Your task to perform on an android device: turn on the 24-hour format for clock Image 0: 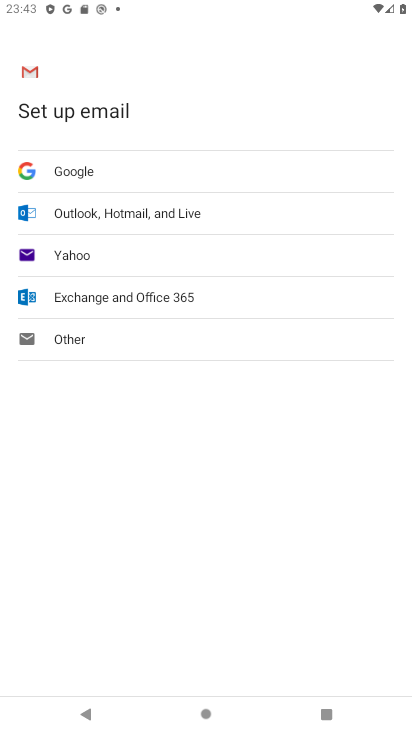
Step 0: press home button
Your task to perform on an android device: turn on the 24-hour format for clock Image 1: 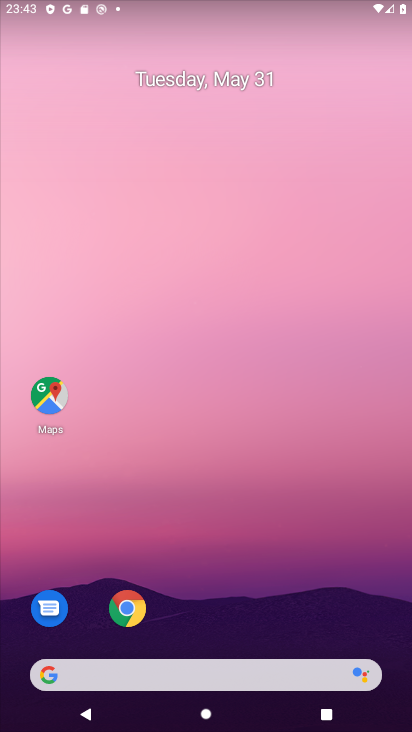
Step 1: drag from (235, 612) to (226, 2)
Your task to perform on an android device: turn on the 24-hour format for clock Image 2: 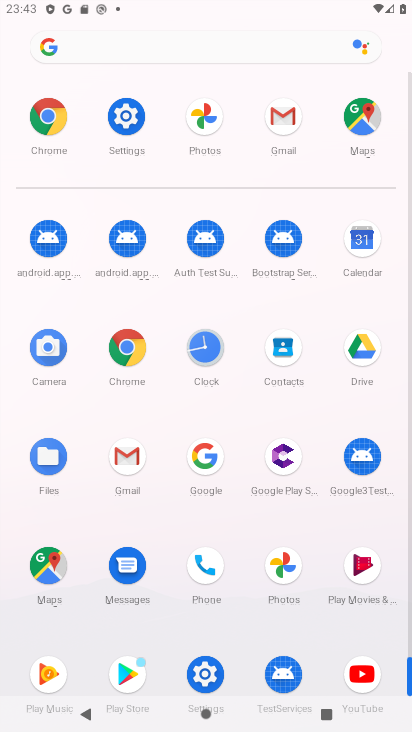
Step 2: click (186, 359)
Your task to perform on an android device: turn on the 24-hour format for clock Image 3: 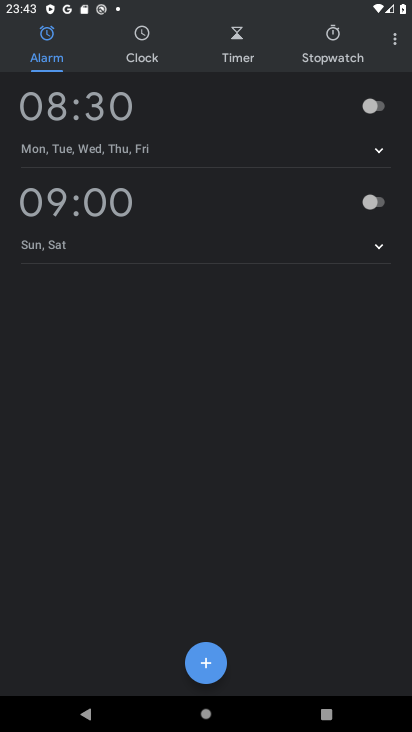
Step 3: click (389, 50)
Your task to perform on an android device: turn on the 24-hour format for clock Image 4: 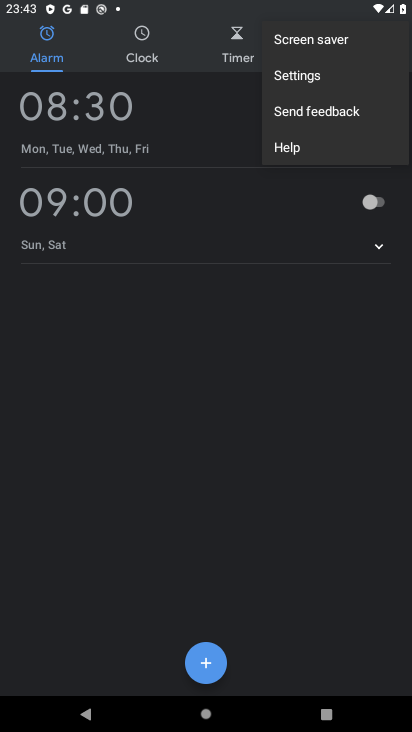
Step 4: click (311, 72)
Your task to perform on an android device: turn on the 24-hour format for clock Image 5: 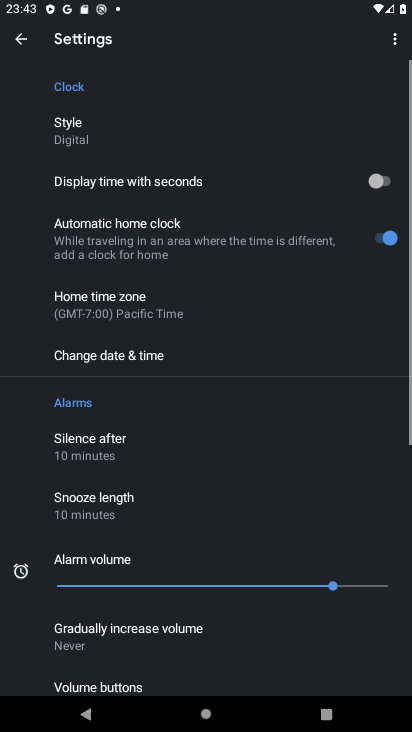
Step 5: click (162, 342)
Your task to perform on an android device: turn on the 24-hour format for clock Image 6: 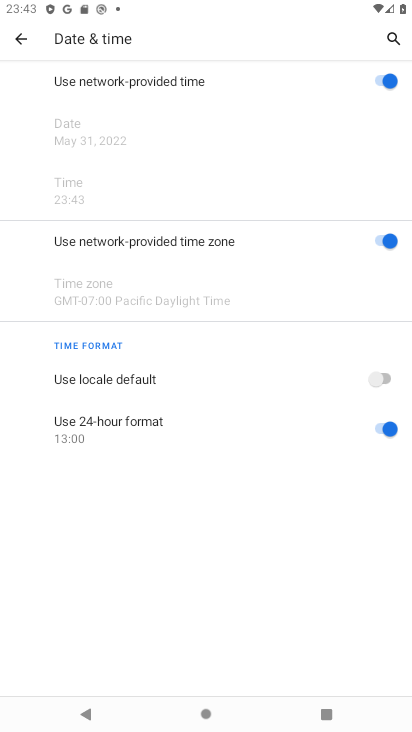
Step 6: click (215, 367)
Your task to perform on an android device: turn on the 24-hour format for clock Image 7: 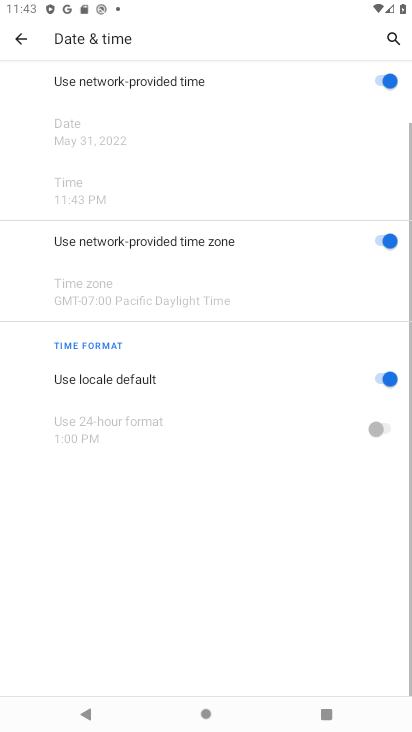
Step 7: click (210, 431)
Your task to perform on an android device: turn on the 24-hour format for clock Image 8: 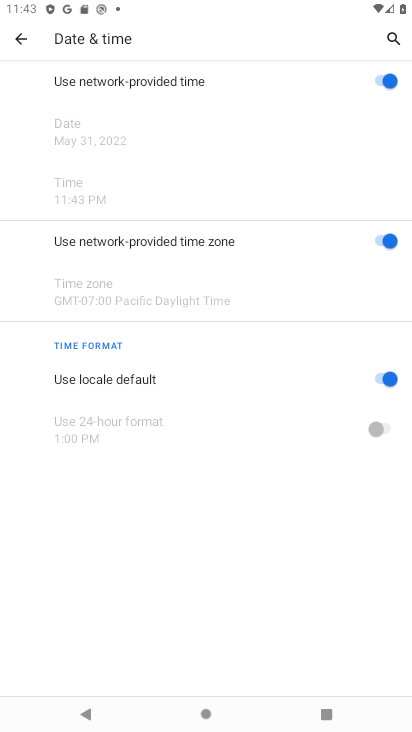
Step 8: click (332, 387)
Your task to perform on an android device: turn on the 24-hour format for clock Image 9: 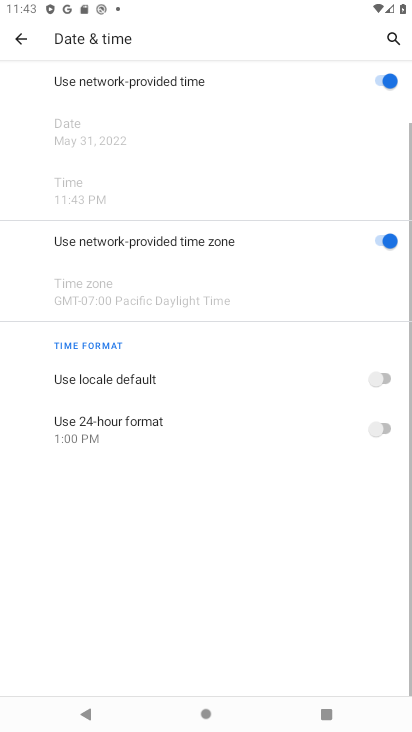
Step 9: click (326, 424)
Your task to perform on an android device: turn on the 24-hour format for clock Image 10: 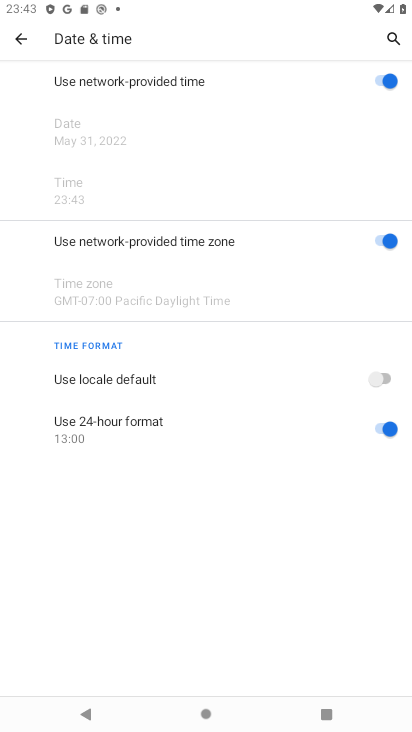
Step 10: task complete